Your task to perform on an android device: Turn off the flashlight Image 0: 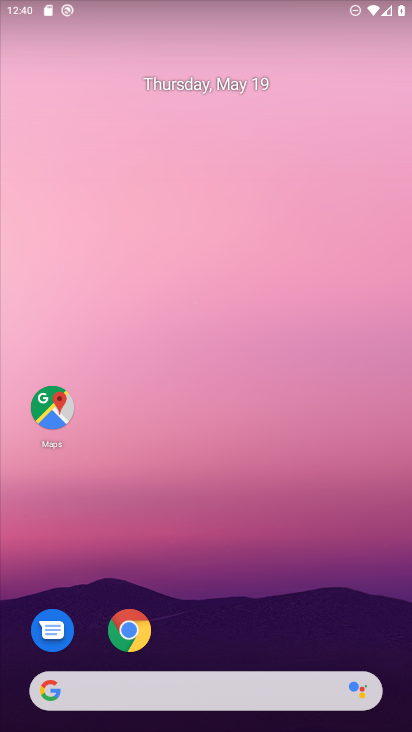
Step 0: click (256, 55)
Your task to perform on an android device: Turn off the flashlight Image 1: 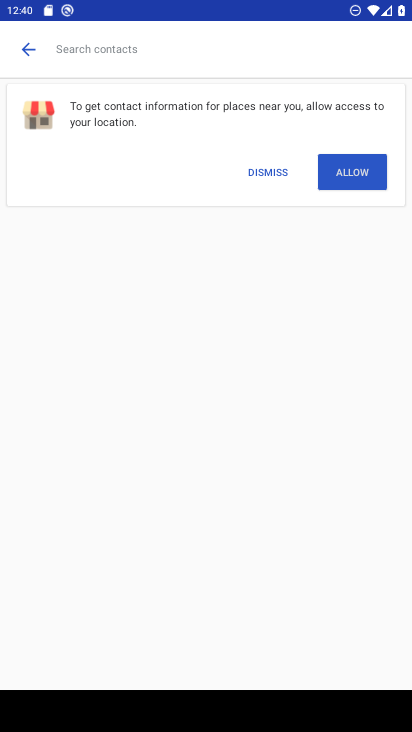
Step 1: press home button
Your task to perform on an android device: Turn off the flashlight Image 2: 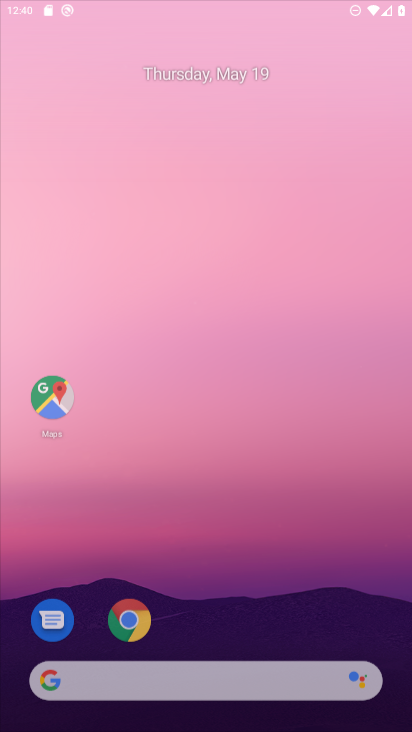
Step 2: drag from (203, 603) to (319, 65)
Your task to perform on an android device: Turn off the flashlight Image 3: 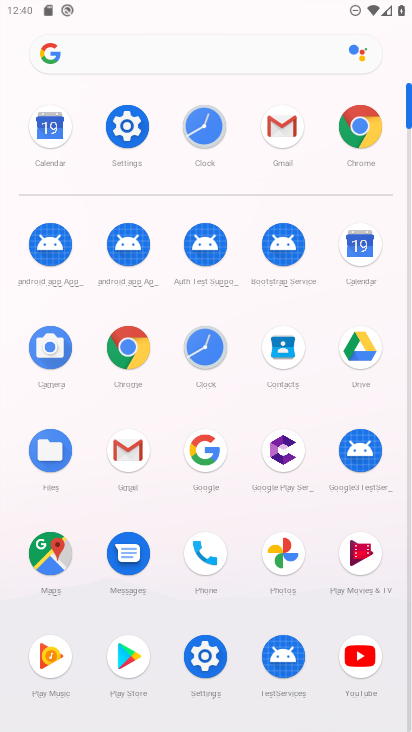
Step 3: click (174, 67)
Your task to perform on an android device: Turn off the flashlight Image 4: 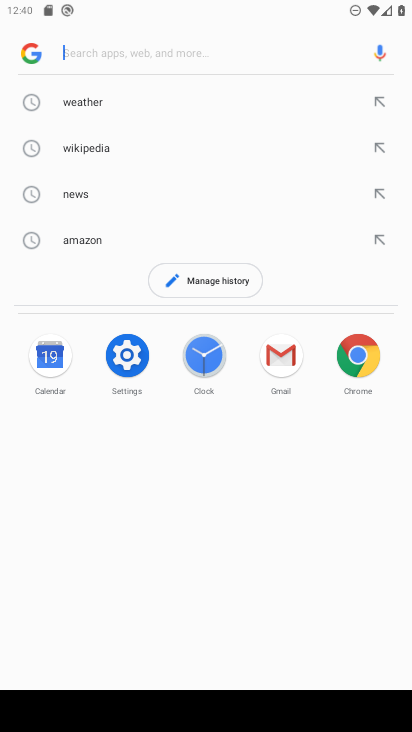
Step 4: press home button
Your task to perform on an android device: Turn off the flashlight Image 5: 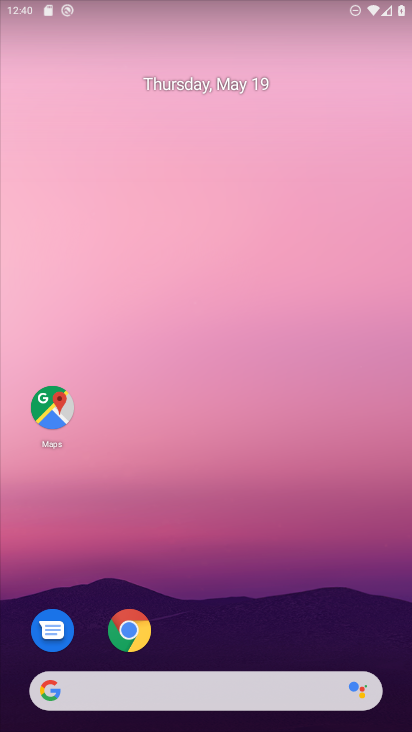
Step 5: drag from (220, 582) to (274, 148)
Your task to perform on an android device: Turn off the flashlight Image 6: 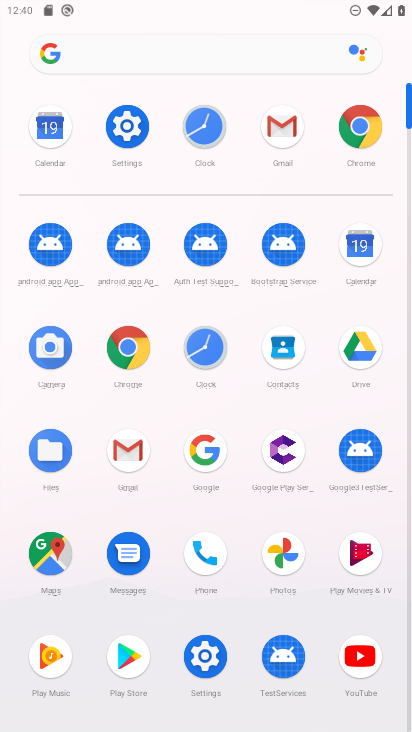
Step 6: click (111, 103)
Your task to perform on an android device: Turn off the flashlight Image 7: 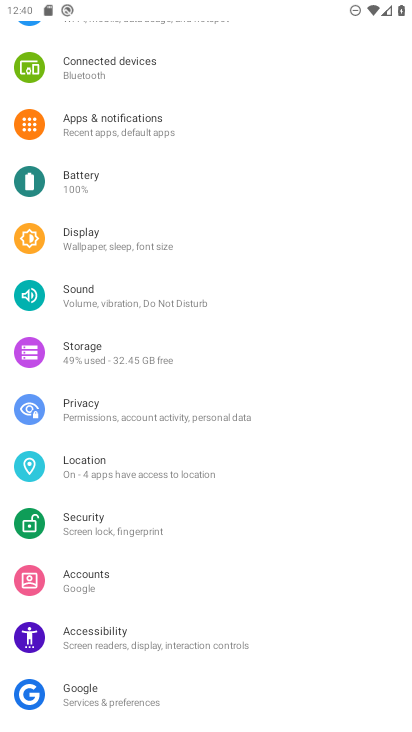
Step 7: drag from (152, 63) to (301, 630)
Your task to perform on an android device: Turn off the flashlight Image 8: 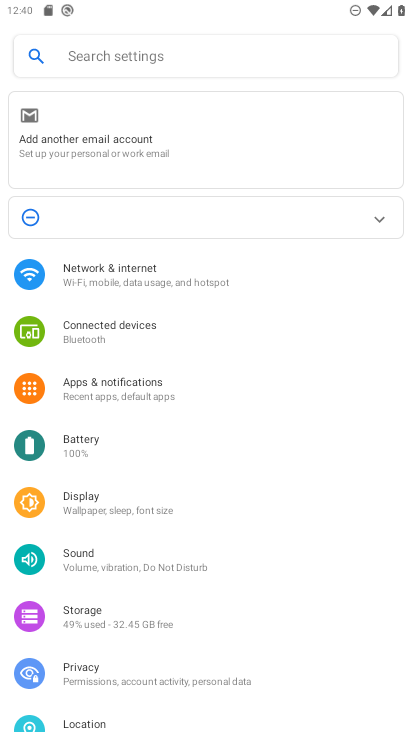
Step 8: click (161, 65)
Your task to perform on an android device: Turn off the flashlight Image 9: 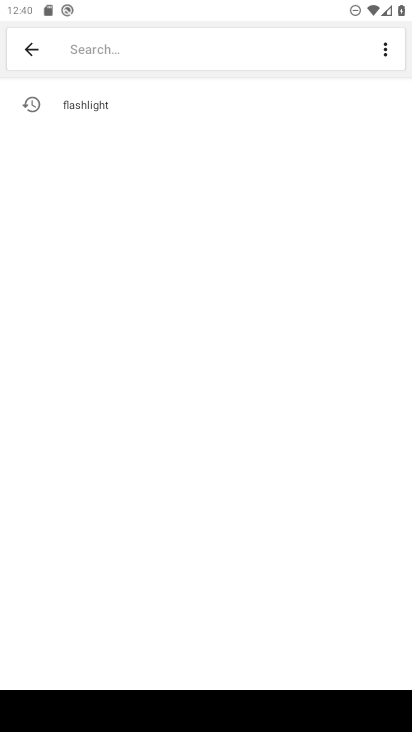
Step 9: click (140, 124)
Your task to perform on an android device: Turn off the flashlight Image 10: 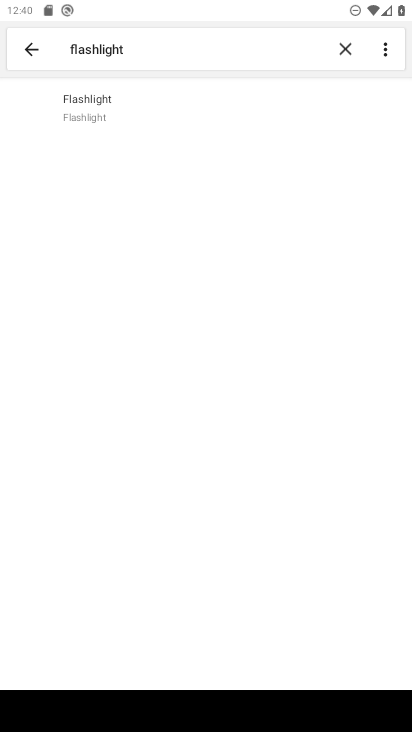
Step 10: task complete